Your task to perform on an android device: toggle pop-ups in chrome Image 0: 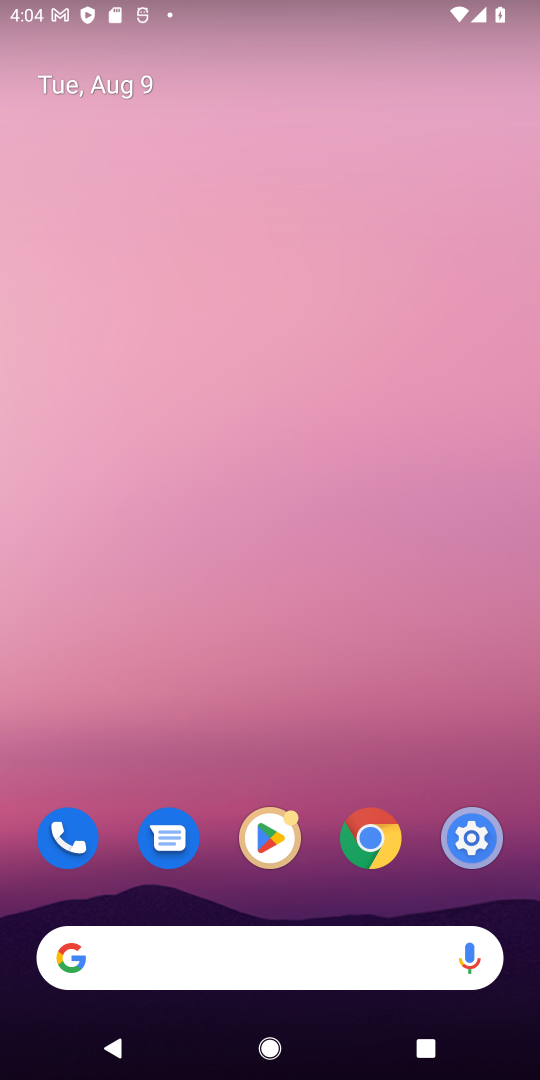
Step 0: drag from (336, 763) to (444, 28)
Your task to perform on an android device: toggle pop-ups in chrome Image 1: 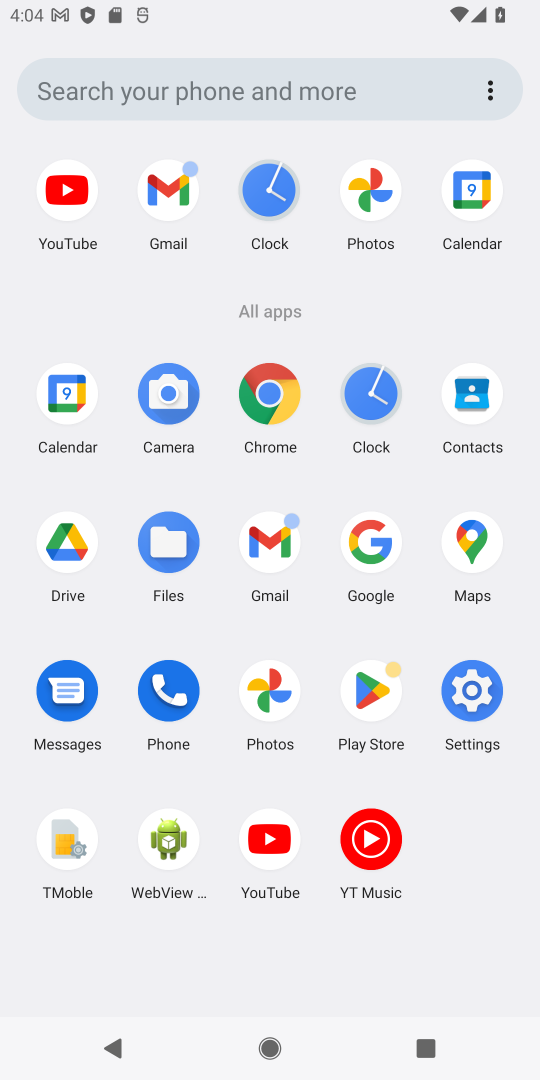
Step 1: click (266, 399)
Your task to perform on an android device: toggle pop-ups in chrome Image 2: 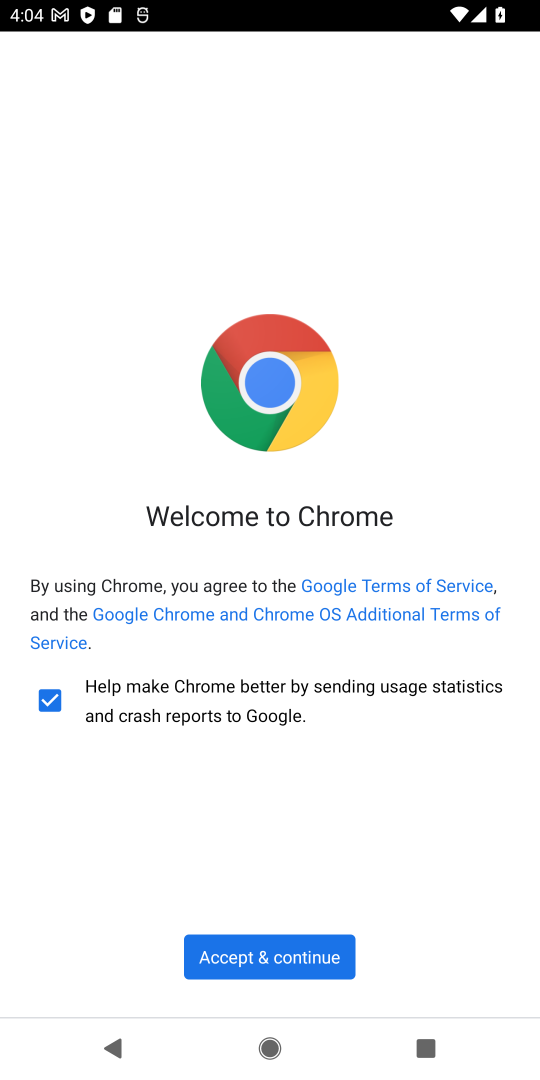
Step 2: click (315, 970)
Your task to perform on an android device: toggle pop-ups in chrome Image 3: 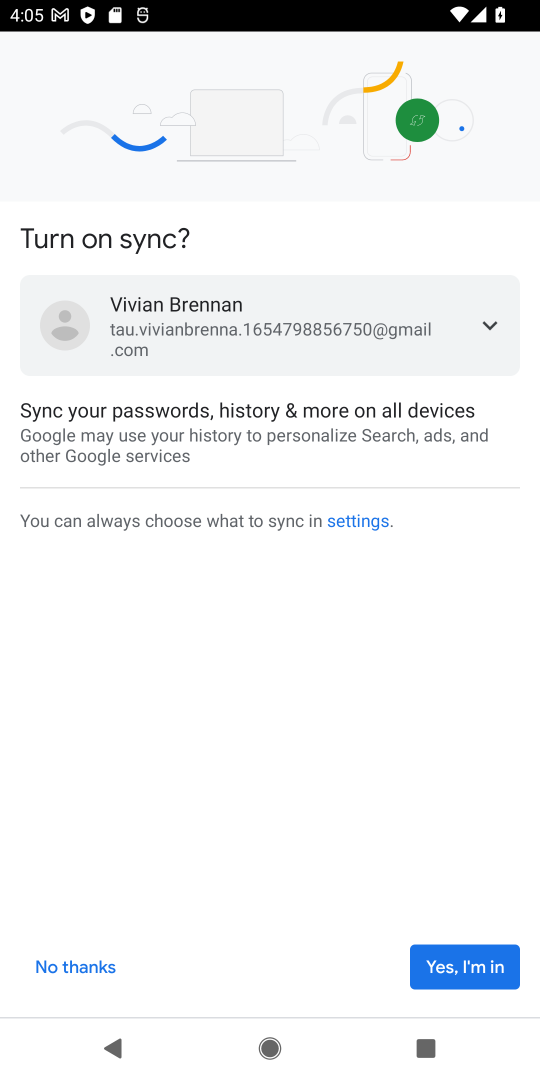
Step 3: click (464, 960)
Your task to perform on an android device: toggle pop-ups in chrome Image 4: 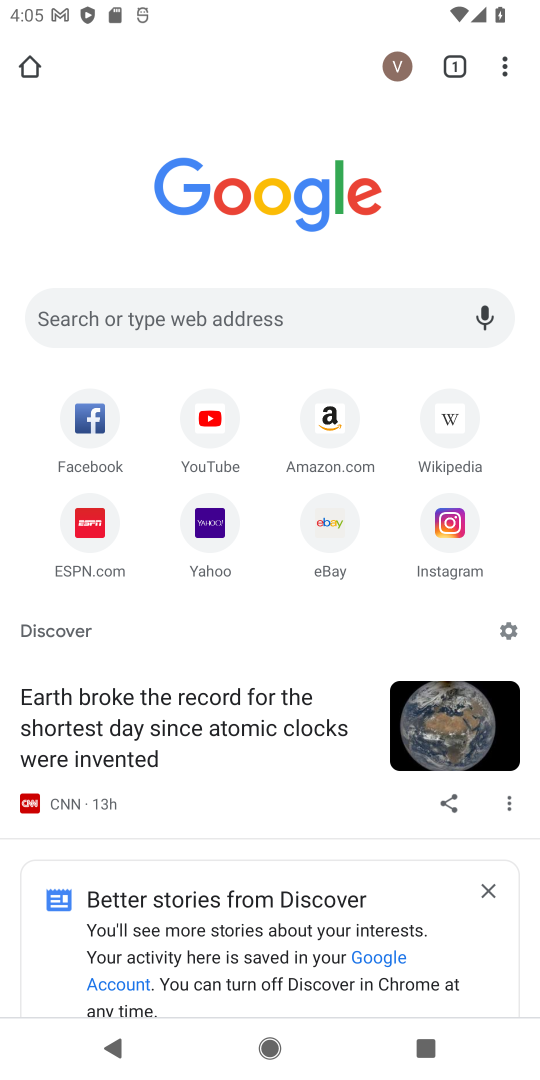
Step 4: click (502, 54)
Your task to perform on an android device: toggle pop-ups in chrome Image 5: 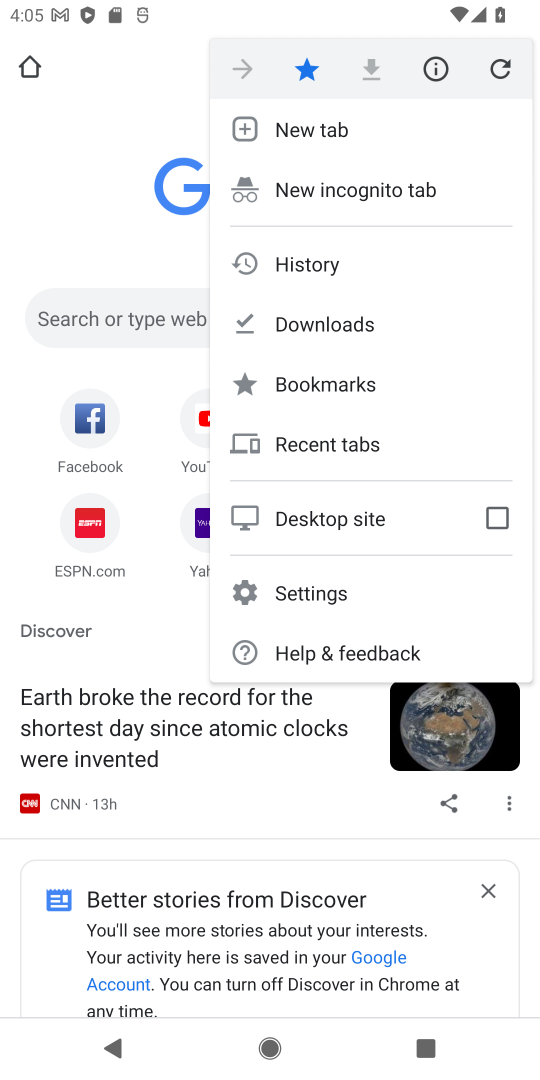
Step 5: click (393, 578)
Your task to perform on an android device: toggle pop-ups in chrome Image 6: 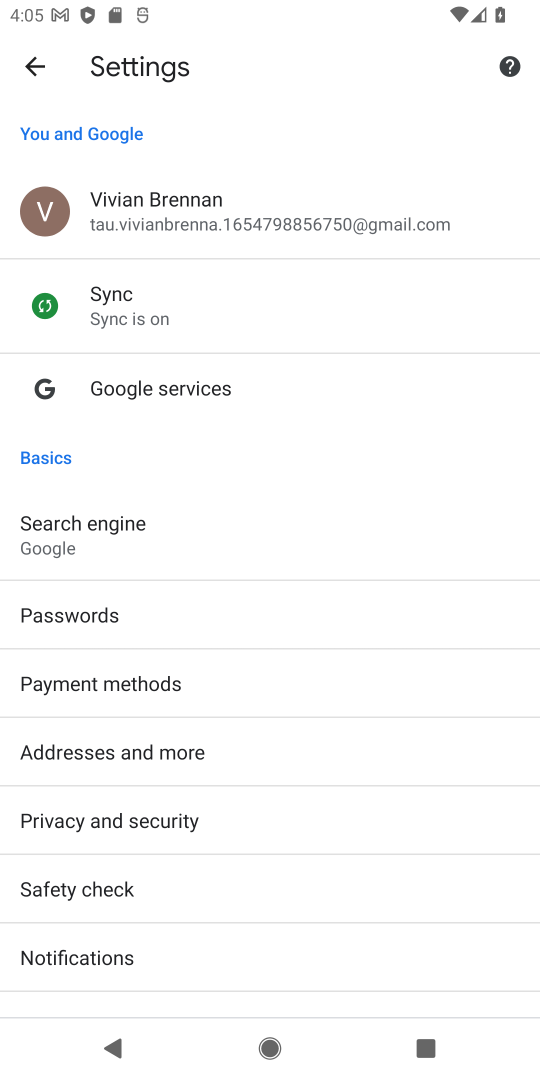
Step 6: drag from (243, 938) to (210, 293)
Your task to perform on an android device: toggle pop-ups in chrome Image 7: 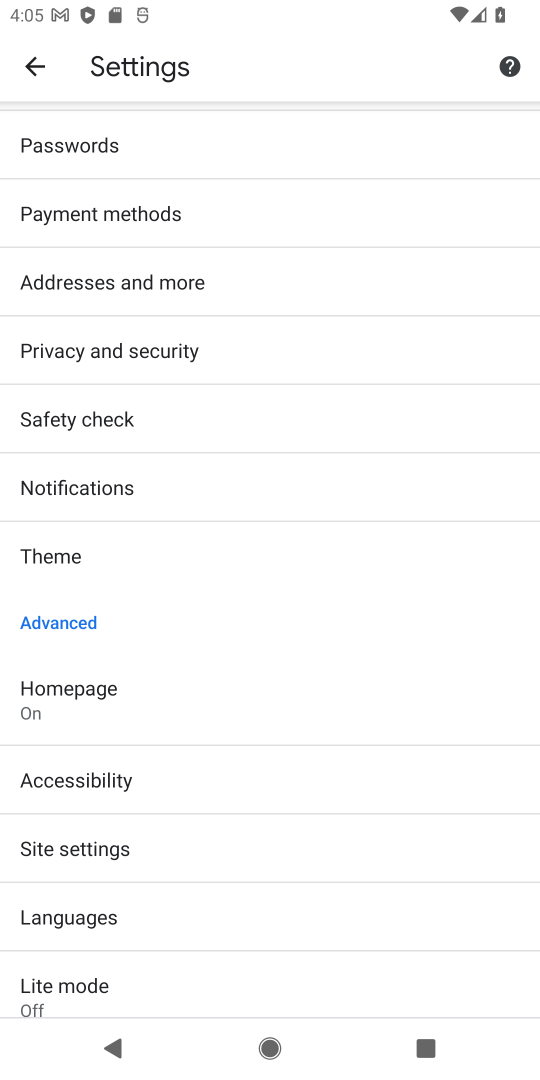
Step 7: click (232, 851)
Your task to perform on an android device: toggle pop-ups in chrome Image 8: 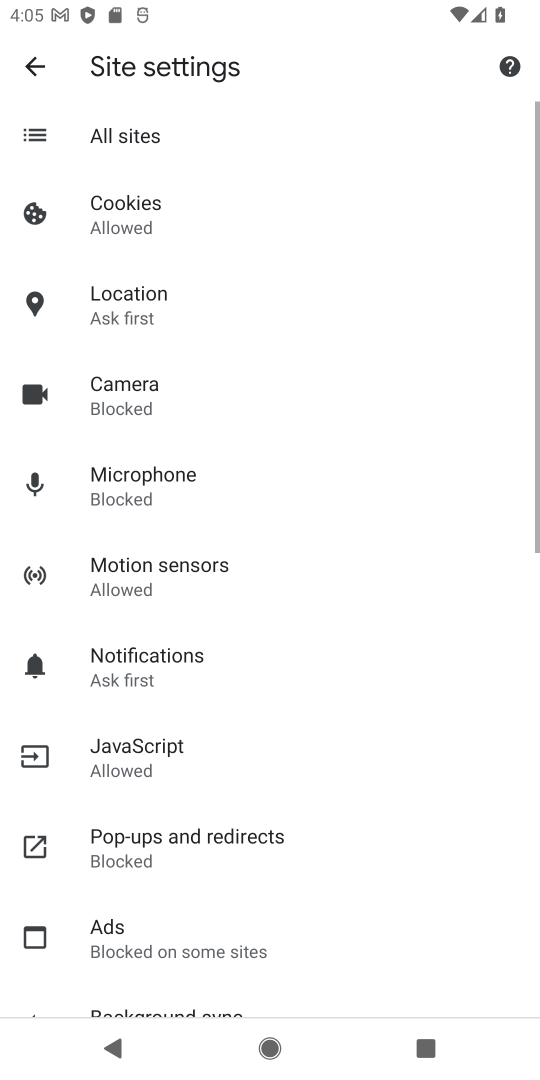
Step 8: click (232, 851)
Your task to perform on an android device: toggle pop-ups in chrome Image 9: 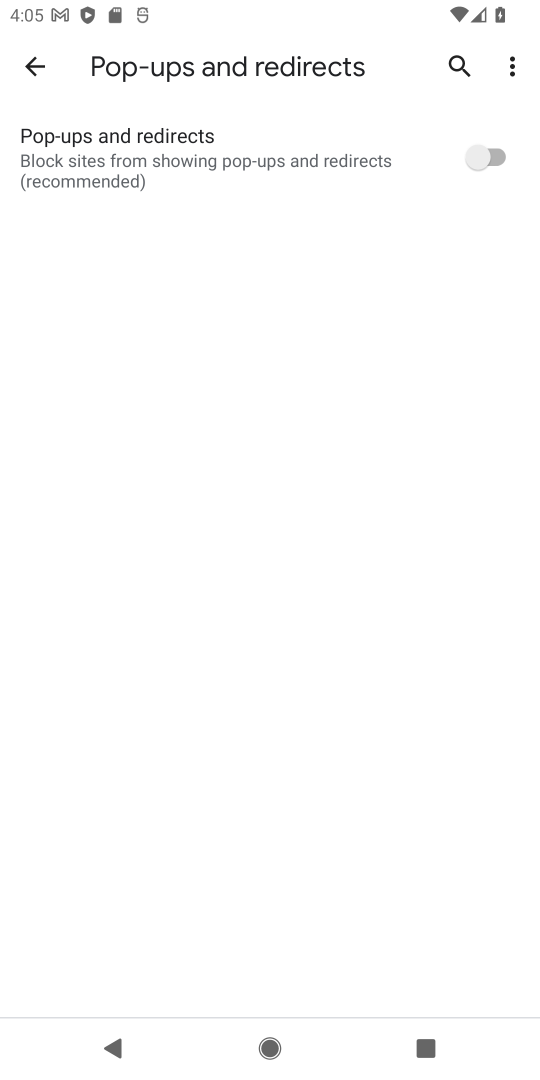
Step 9: click (496, 165)
Your task to perform on an android device: toggle pop-ups in chrome Image 10: 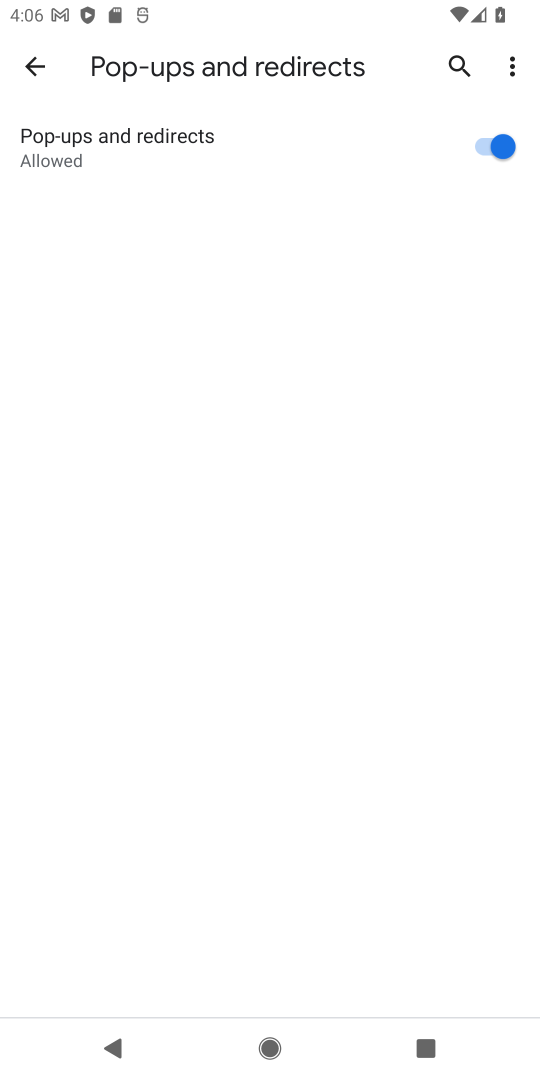
Step 10: task complete